Your task to perform on an android device: Find coffee shops on Maps Image 0: 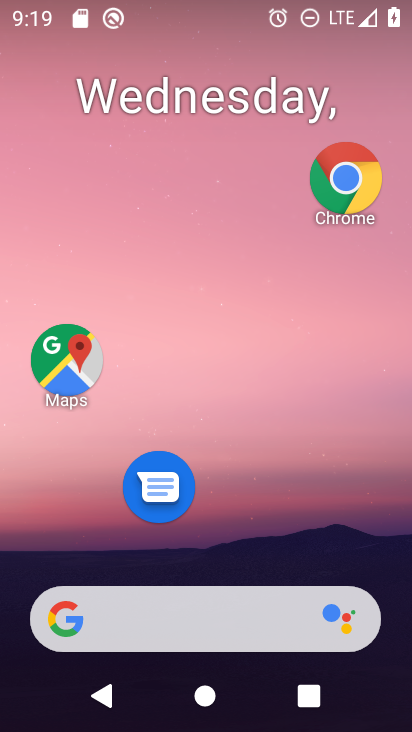
Step 0: drag from (262, 585) to (315, 133)
Your task to perform on an android device: Find coffee shops on Maps Image 1: 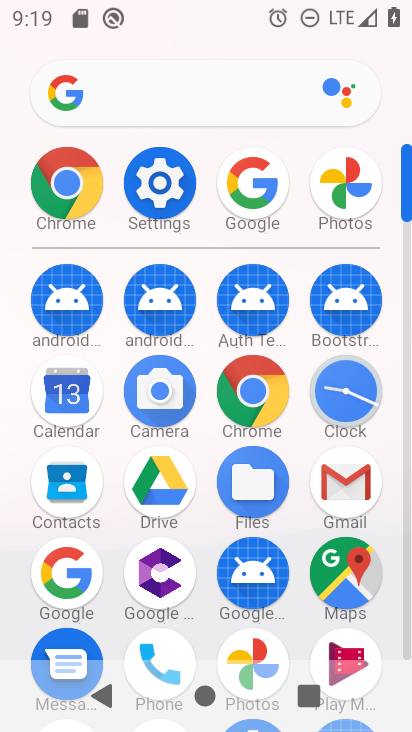
Step 1: click (343, 575)
Your task to perform on an android device: Find coffee shops on Maps Image 2: 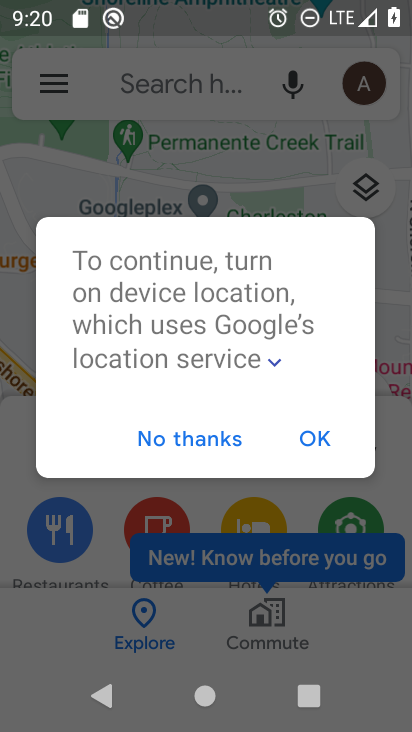
Step 2: click (325, 436)
Your task to perform on an android device: Find coffee shops on Maps Image 3: 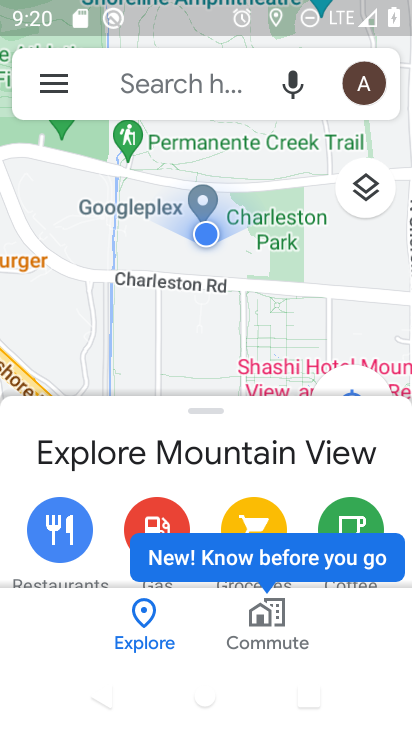
Step 3: click (159, 98)
Your task to perform on an android device: Find coffee shops on Maps Image 4: 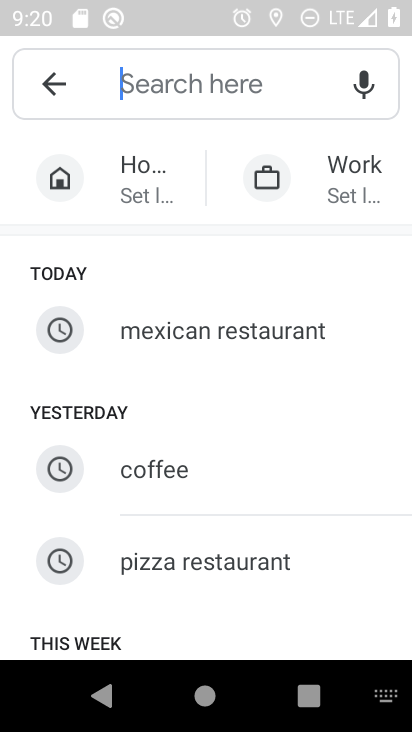
Step 4: drag from (212, 548) to (219, 411)
Your task to perform on an android device: Find coffee shops on Maps Image 5: 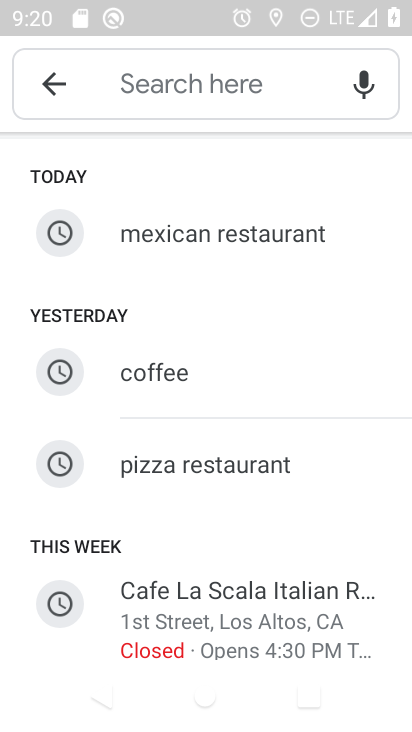
Step 5: click (214, 391)
Your task to perform on an android device: Find coffee shops on Maps Image 6: 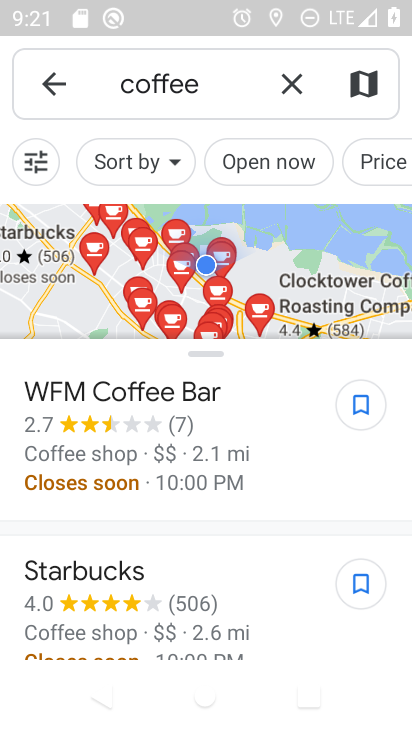
Step 6: task complete